Your task to perform on an android device: open a bookmark in the chrome app Image 0: 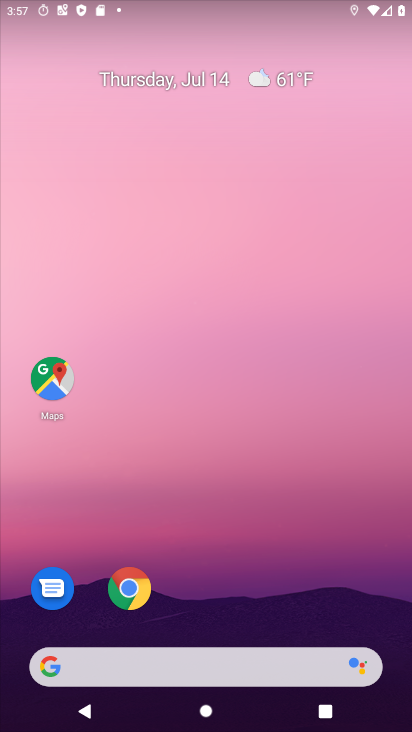
Step 0: click (131, 590)
Your task to perform on an android device: open a bookmark in the chrome app Image 1: 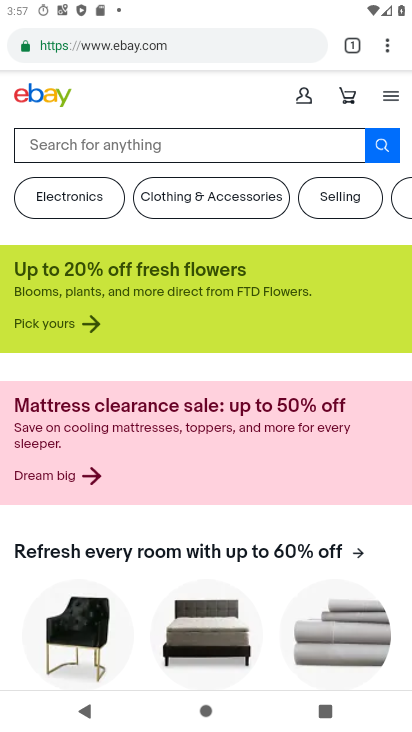
Step 1: click (386, 46)
Your task to perform on an android device: open a bookmark in the chrome app Image 2: 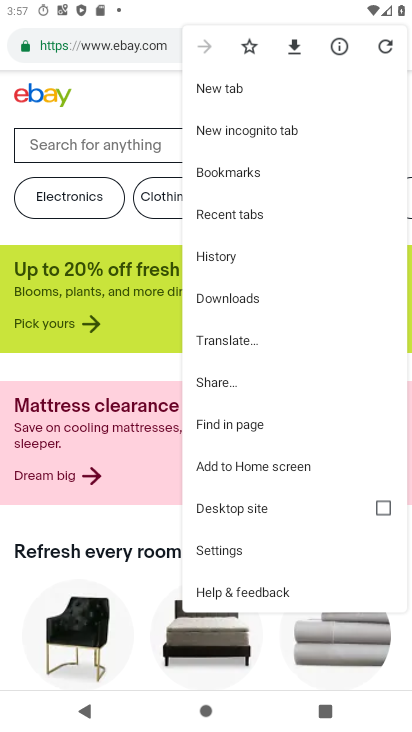
Step 2: click (245, 173)
Your task to perform on an android device: open a bookmark in the chrome app Image 3: 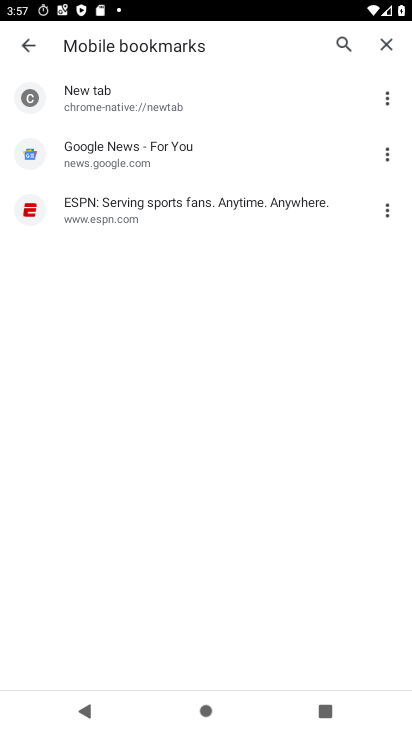
Step 3: task complete